Your task to perform on an android device: empty trash in the gmail app Image 0: 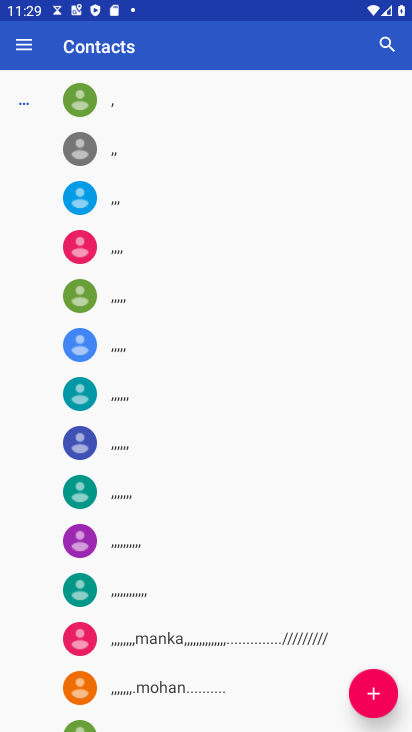
Step 0: press home button
Your task to perform on an android device: empty trash in the gmail app Image 1: 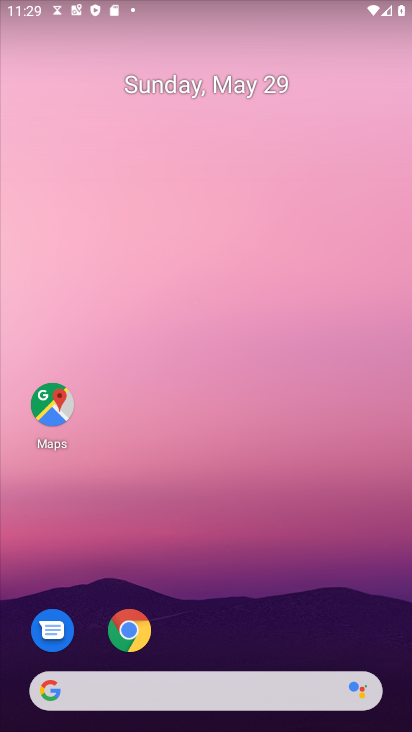
Step 1: drag from (238, 591) to (288, 93)
Your task to perform on an android device: empty trash in the gmail app Image 2: 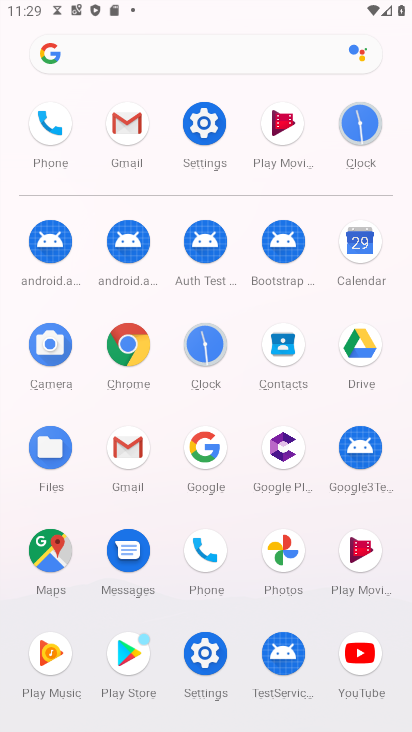
Step 2: click (135, 134)
Your task to perform on an android device: empty trash in the gmail app Image 3: 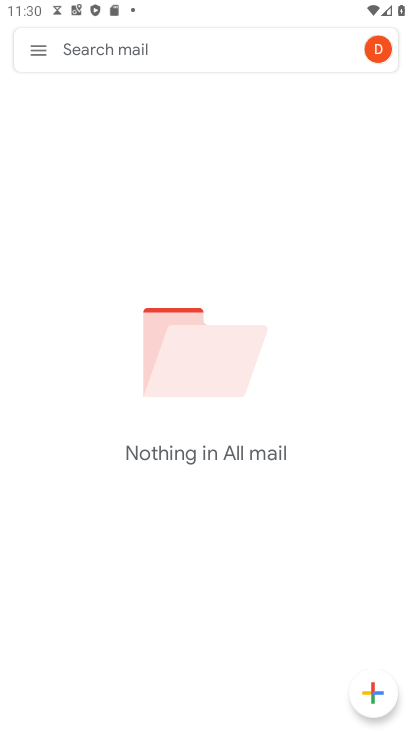
Step 3: click (50, 44)
Your task to perform on an android device: empty trash in the gmail app Image 4: 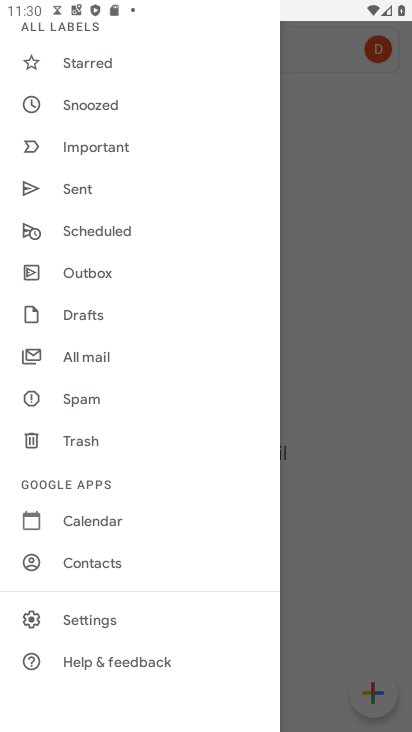
Step 4: click (78, 435)
Your task to perform on an android device: empty trash in the gmail app Image 5: 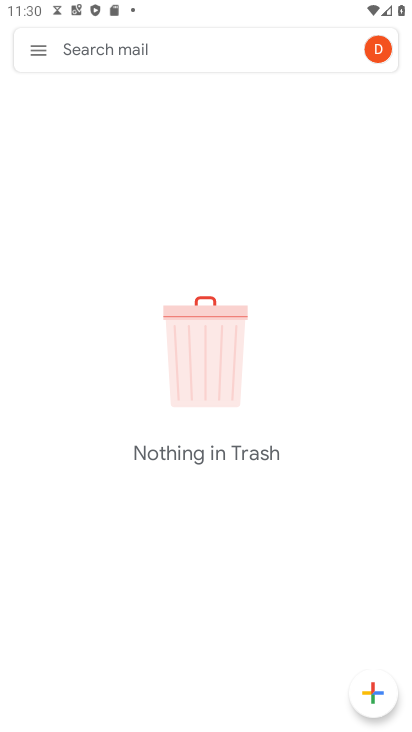
Step 5: task complete